Your task to perform on an android device: check data usage Image 0: 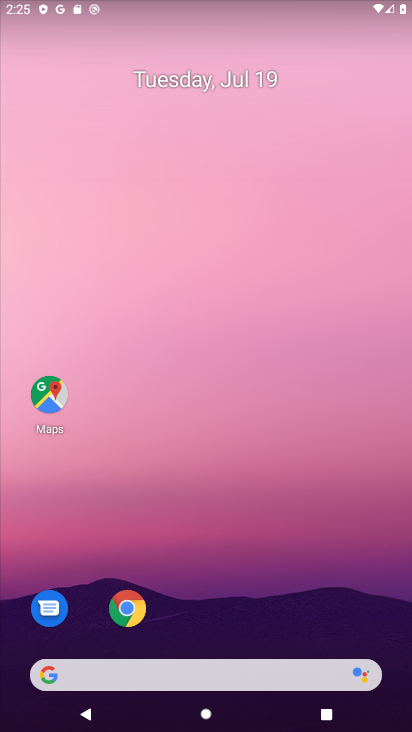
Step 0: drag from (243, 593) to (217, 112)
Your task to perform on an android device: check data usage Image 1: 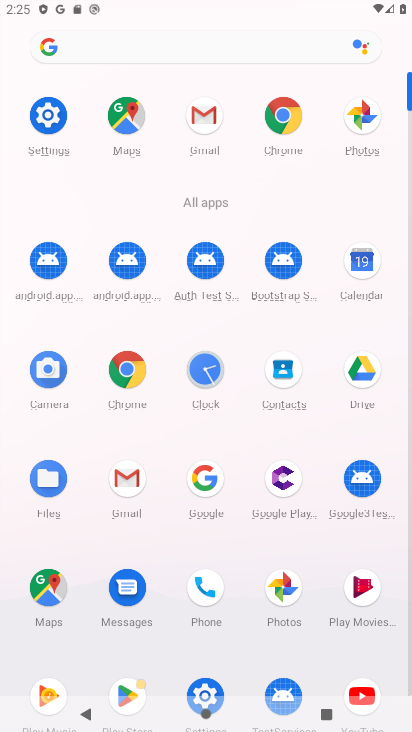
Step 1: click (43, 115)
Your task to perform on an android device: check data usage Image 2: 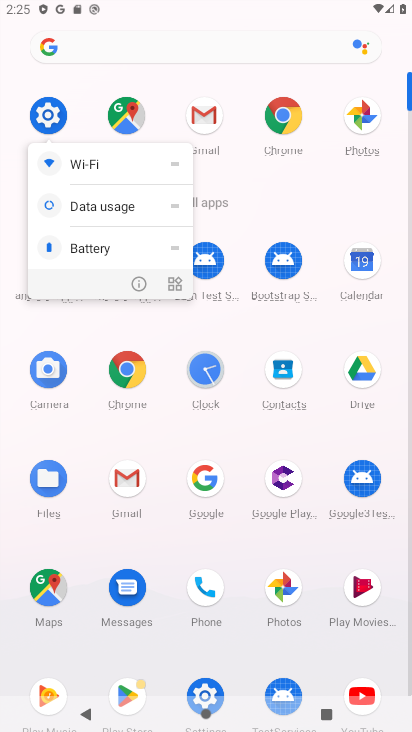
Step 2: click (43, 115)
Your task to perform on an android device: check data usage Image 3: 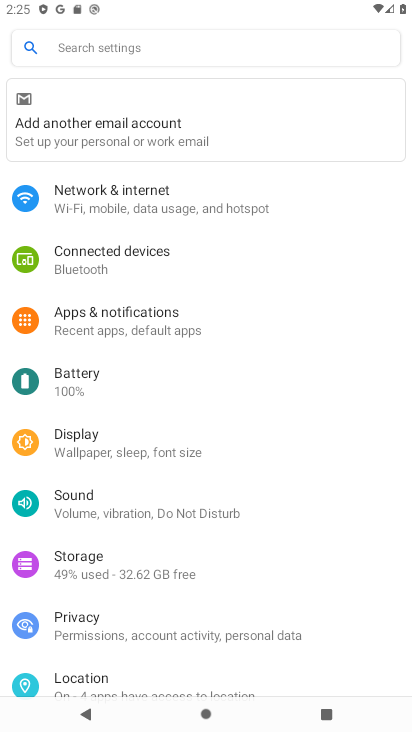
Step 3: click (157, 193)
Your task to perform on an android device: check data usage Image 4: 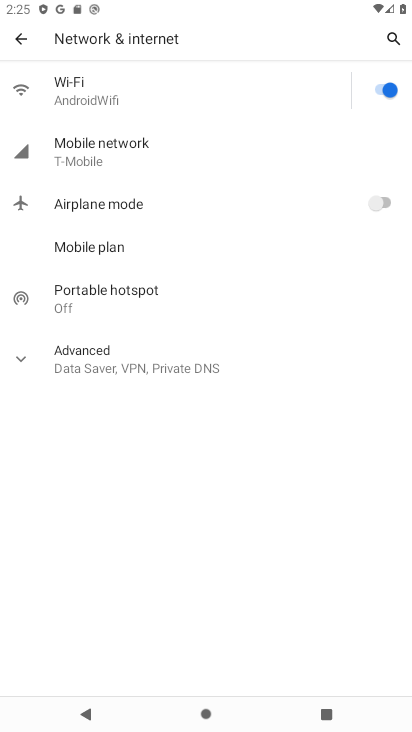
Step 4: click (120, 143)
Your task to perform on an android device: check data usage Image 5: 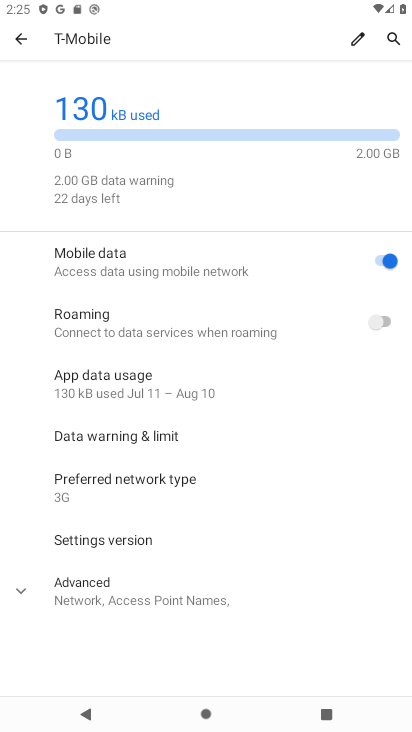
Step 5: task complete